Your task to perform on an android device: Clear the cart on amazon. Search for asus zenbook on amazon, select the first entry, add it to the cart, then select checkout. Image 0: 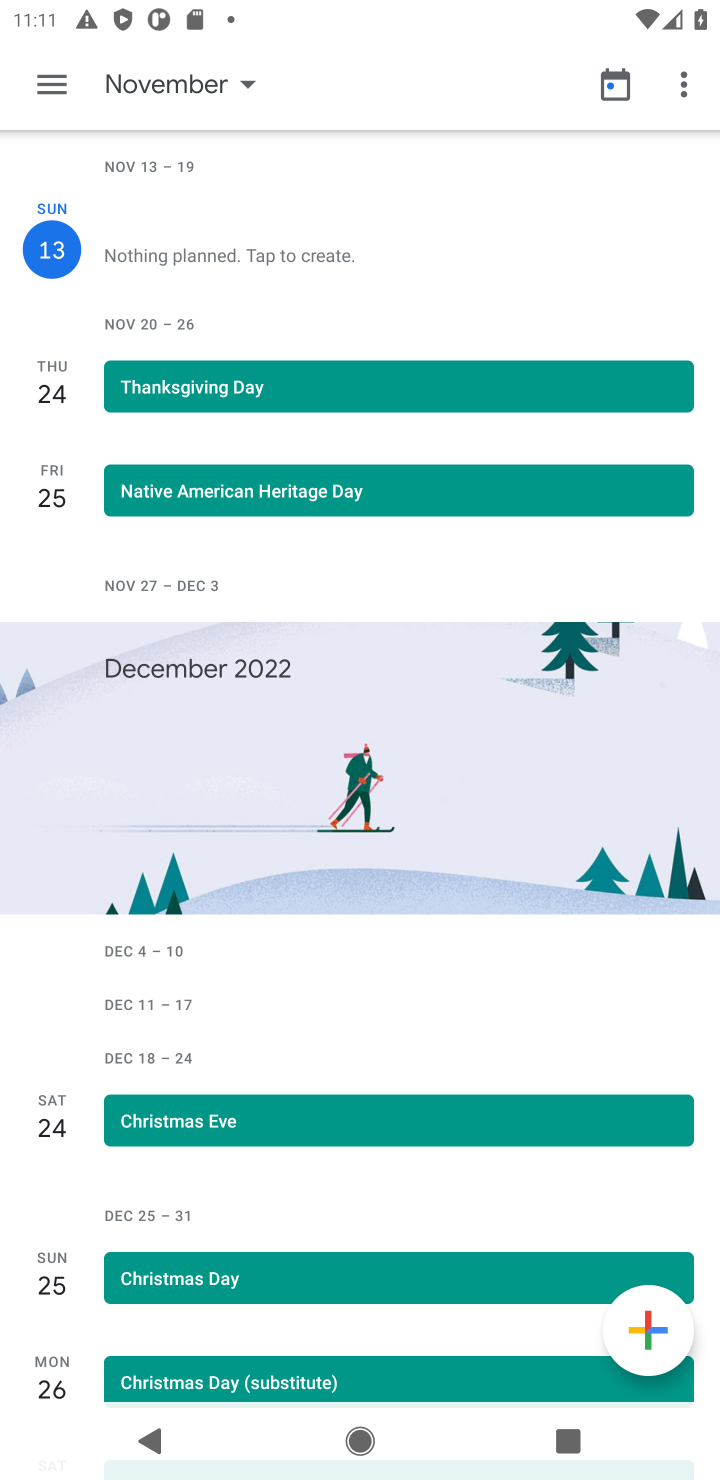
Step 0: press home button
Your task to perform on an android device: Clear the cart on amazon. Search for asus zenbook on amazon, select the first entry, add it to the cart, then select checkout. Image 1: 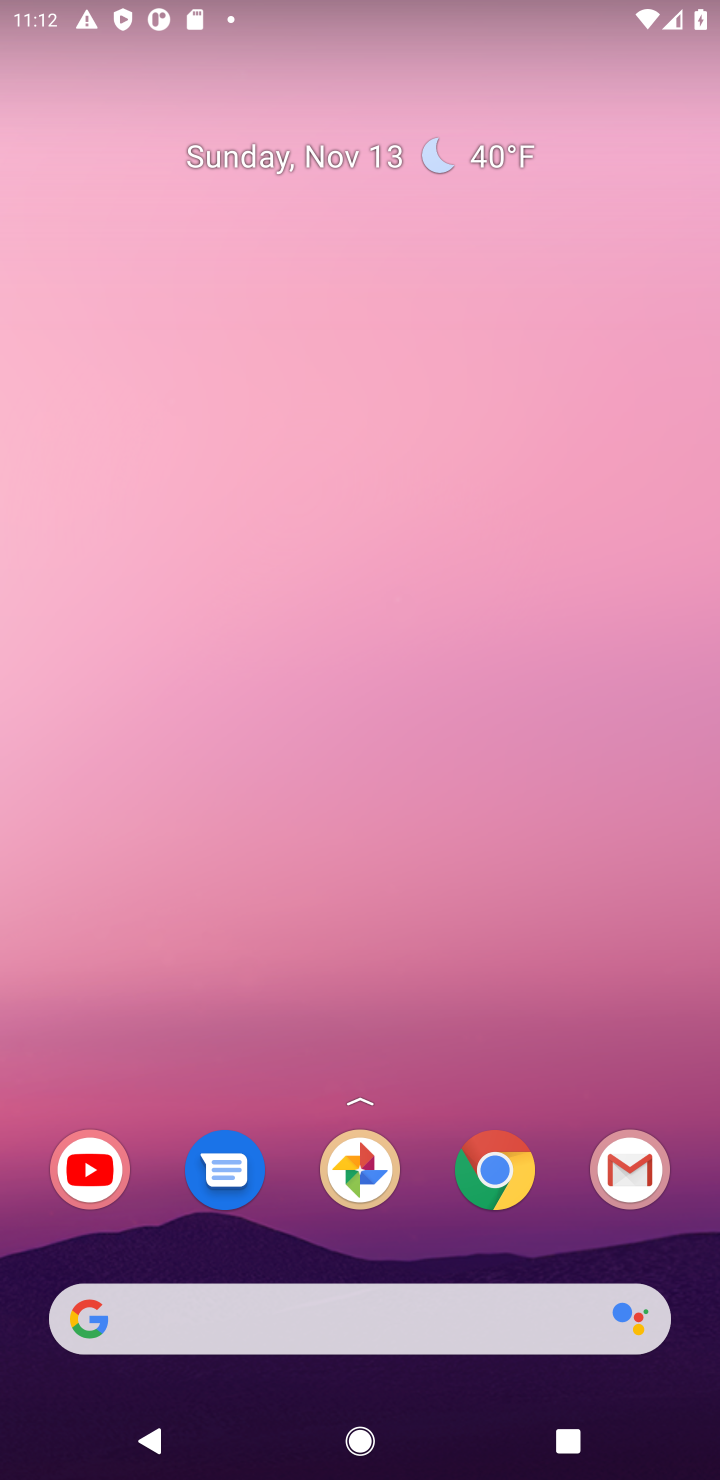
Step 1: drag from (452, 25) to (124, 12)
Your task to perform on an android device: Clear the cart on amazon. Search for asus zenbook on amazon, select the first entry, add it to the cart, then select checkout. Image 2: 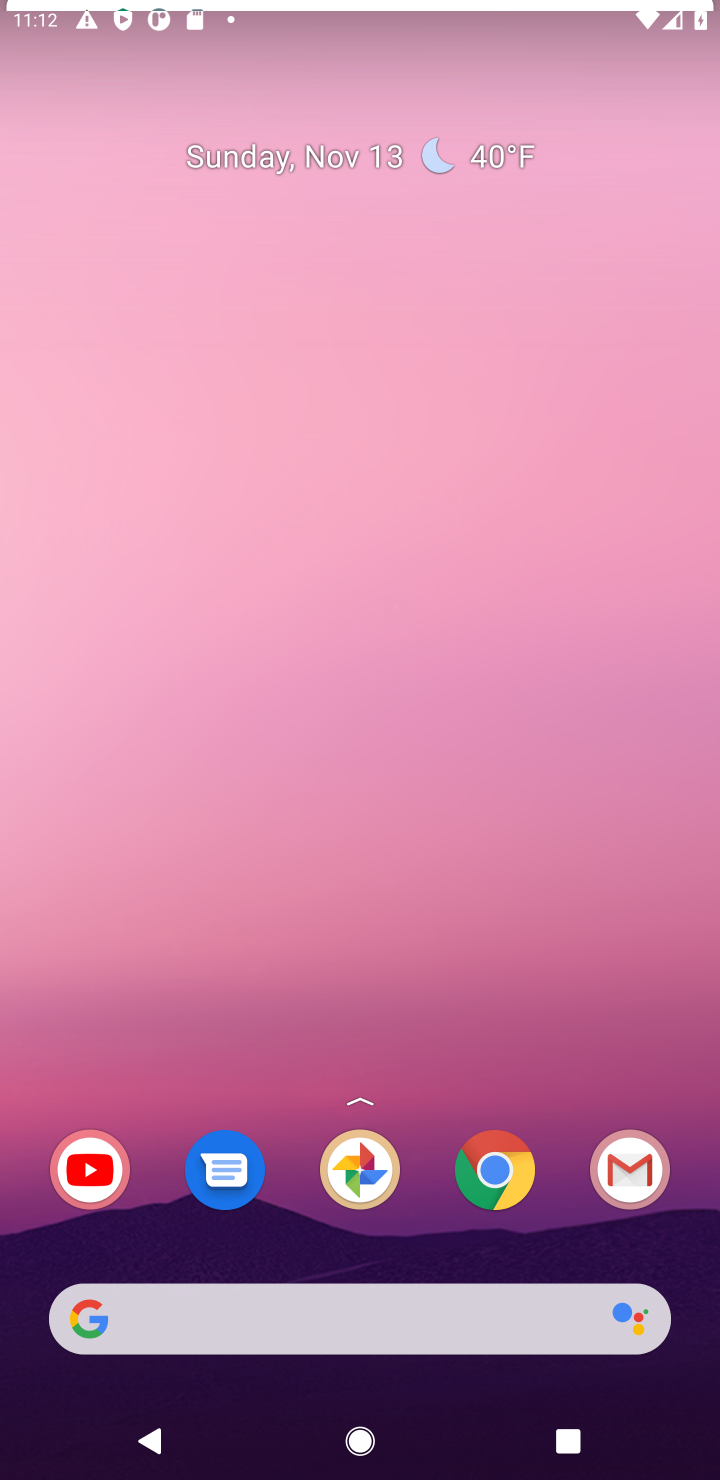
Step 2: drag from (487, 528) to (372, 39)
Your task to perform on an android device: Clear the cart on amazon. Search for asus zenbook on amazon, select the first entry, add it to the cart, then select checkout. Image 3: 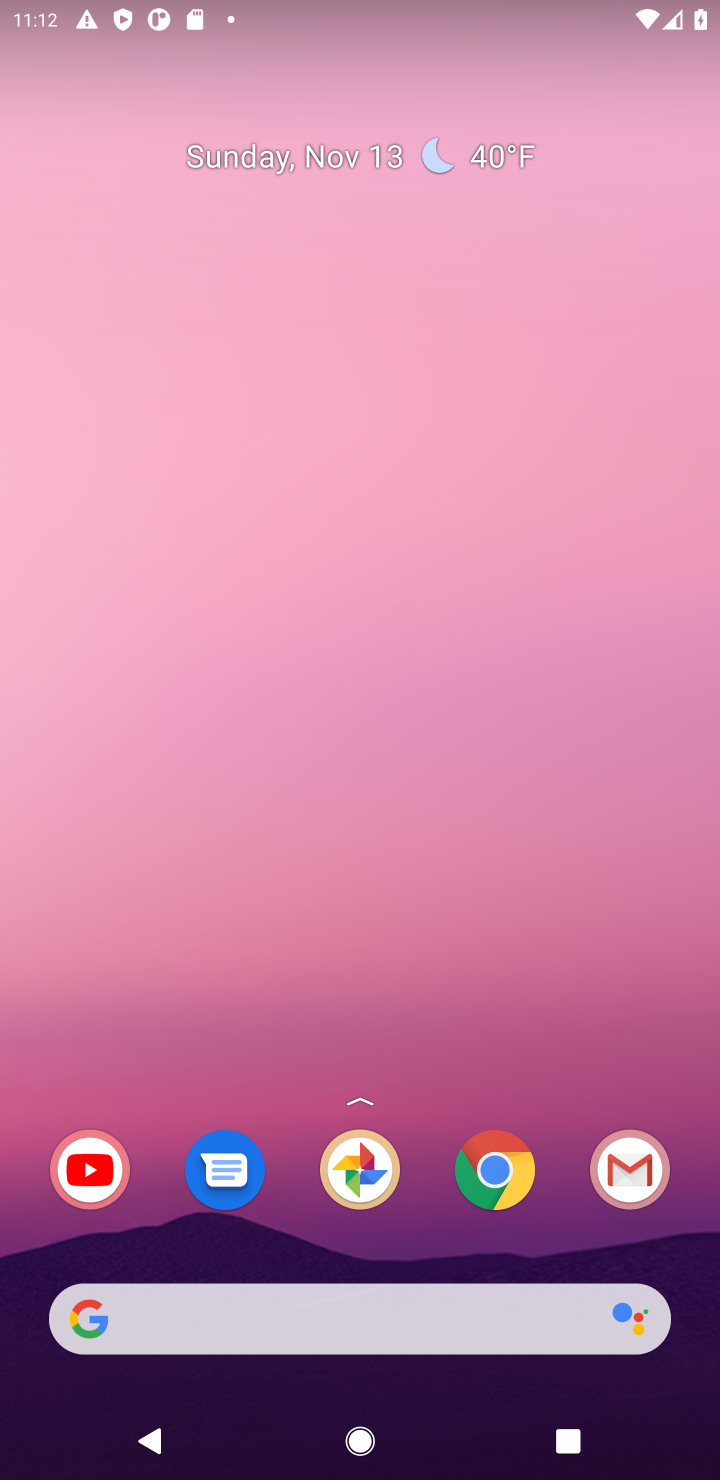
Step 3: drag from (538, 1040) to (469, 111)
Your task to perform on an android device: Clear the cart on amazon. Search for asus zenbook on amazon, select the first entry, add it to the cart, then select checkout. Image 4: 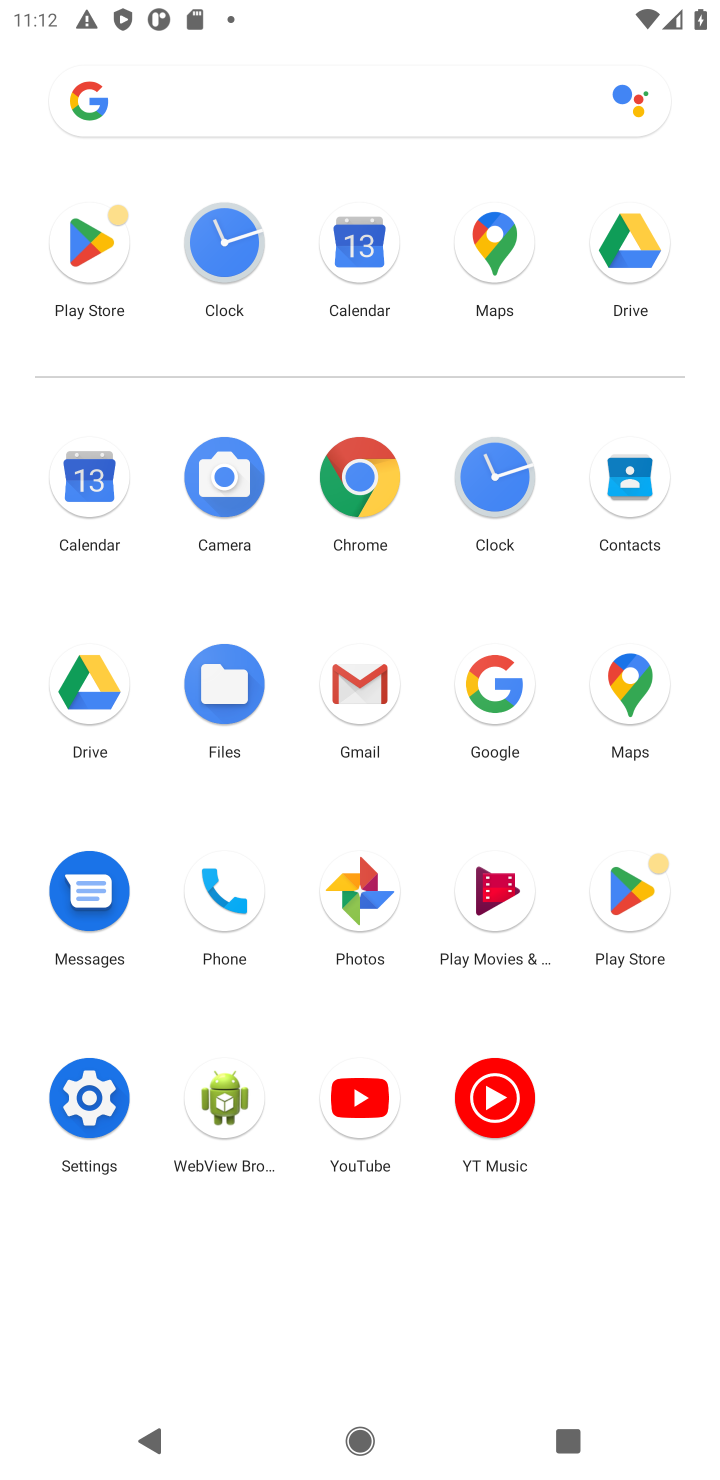
Step 4: click (354, 517)
Your task to perform on an android device: Clear the cart on amazon. Search for asus zenbook on amazon, select the first entry, add it to the cart, then select checkout. Image 5: 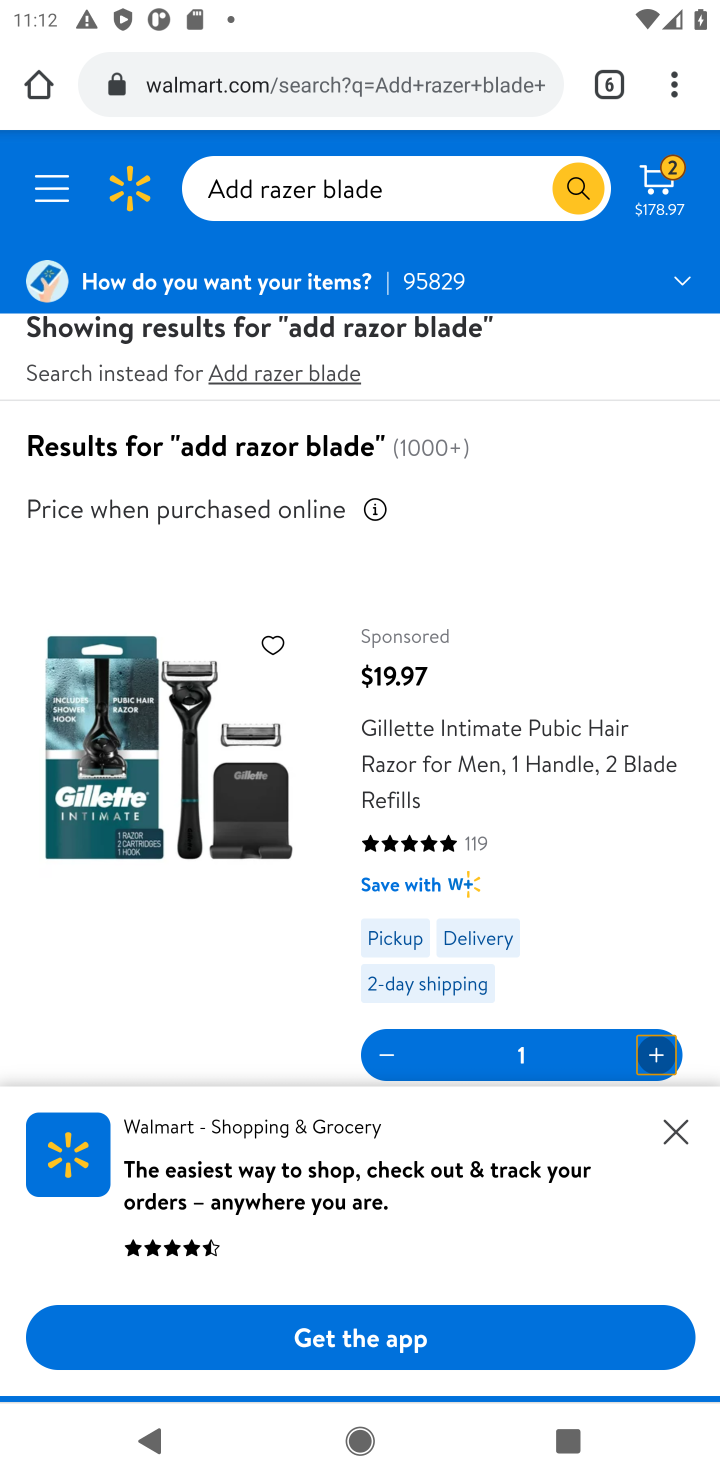
Step 5: click (290, 74)
Your task to perform on an android device: Clear the cart on amazon. Search for asus zenbook on amazon, select the first entry, add it to the cart, then select checkout. Image 6: 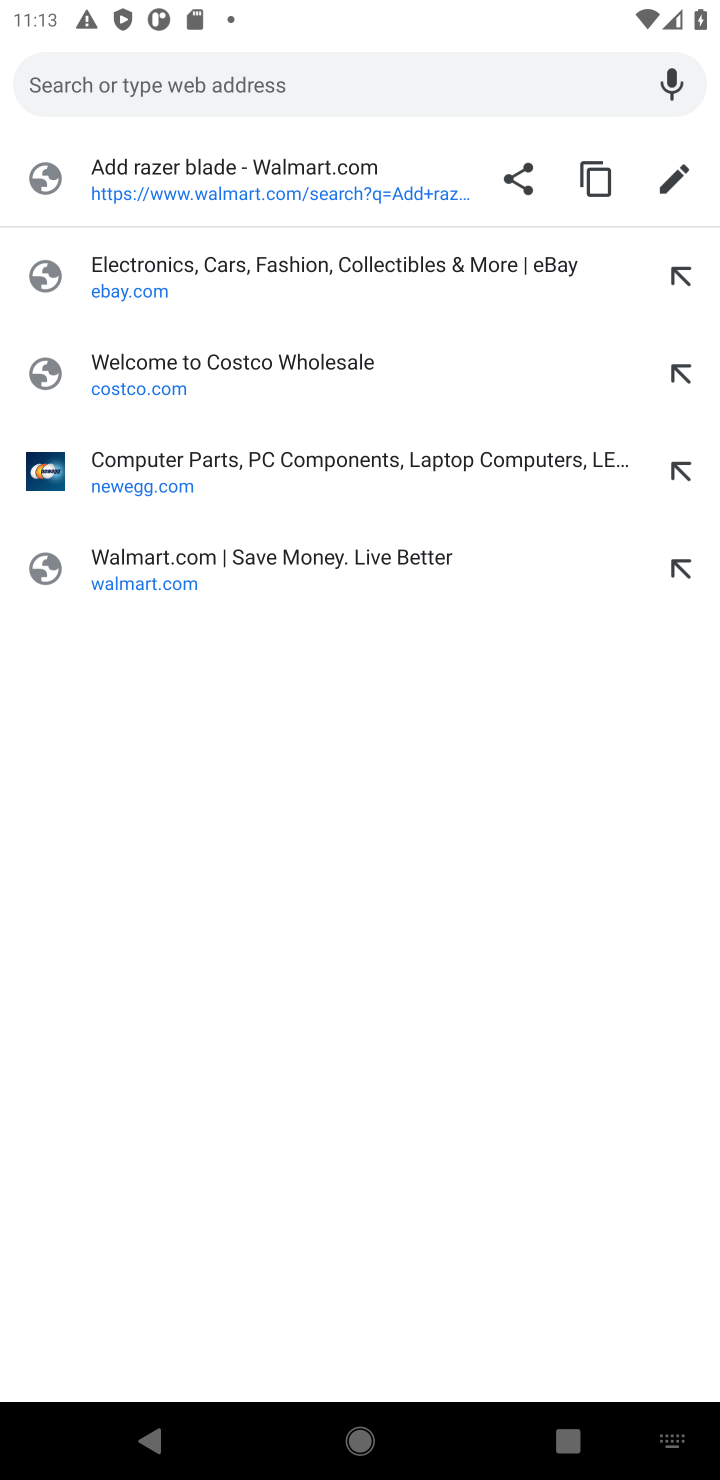
Step 6: type "amazon"
Your task to perform on an android device: Clear the cart on amazon. Search for asus zenbook on amazon, select the first entry, add it to the cart, then select checkout. Image 7: 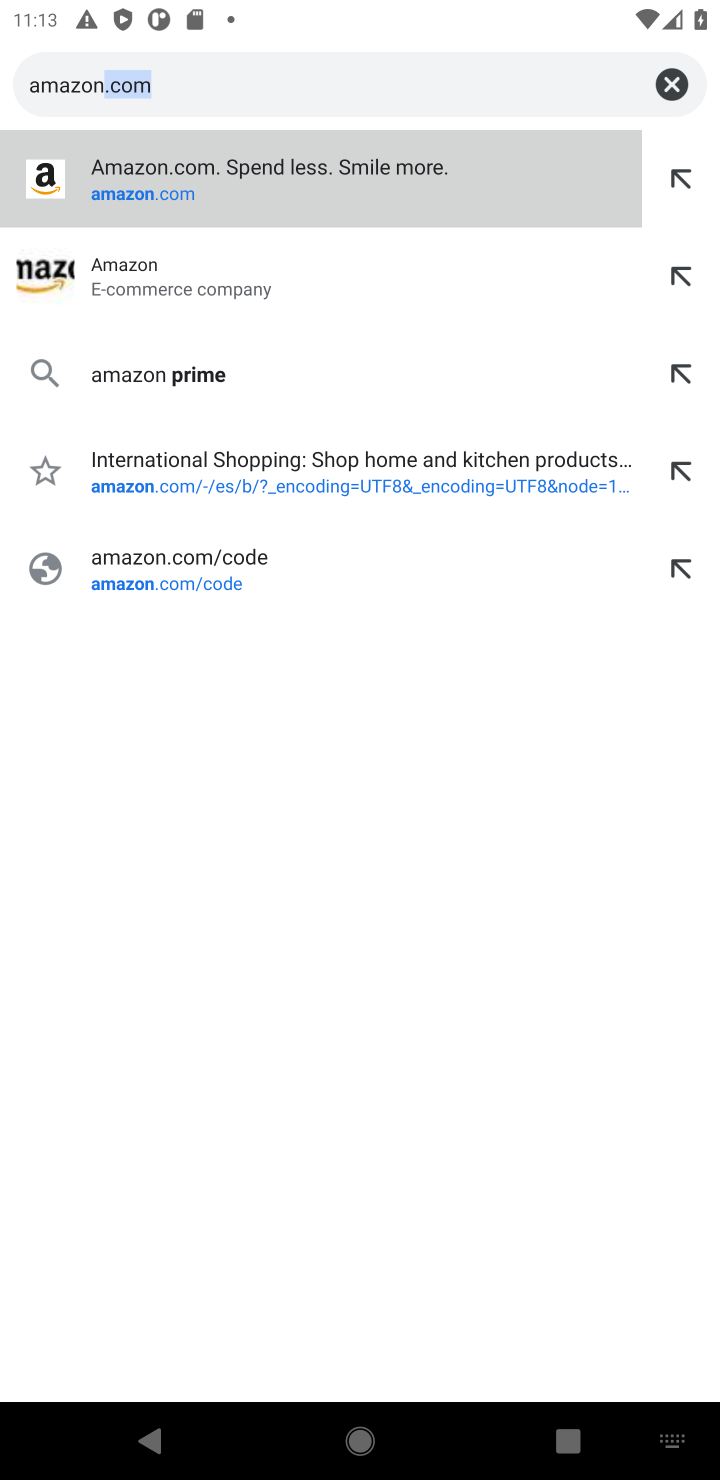
Step 7: press enter
Your task to perform on an android device: Clear the cart on amazon. Search for asus zenbook on amazon, select the first entry, add it to the cart, then select checkout. Image 8: 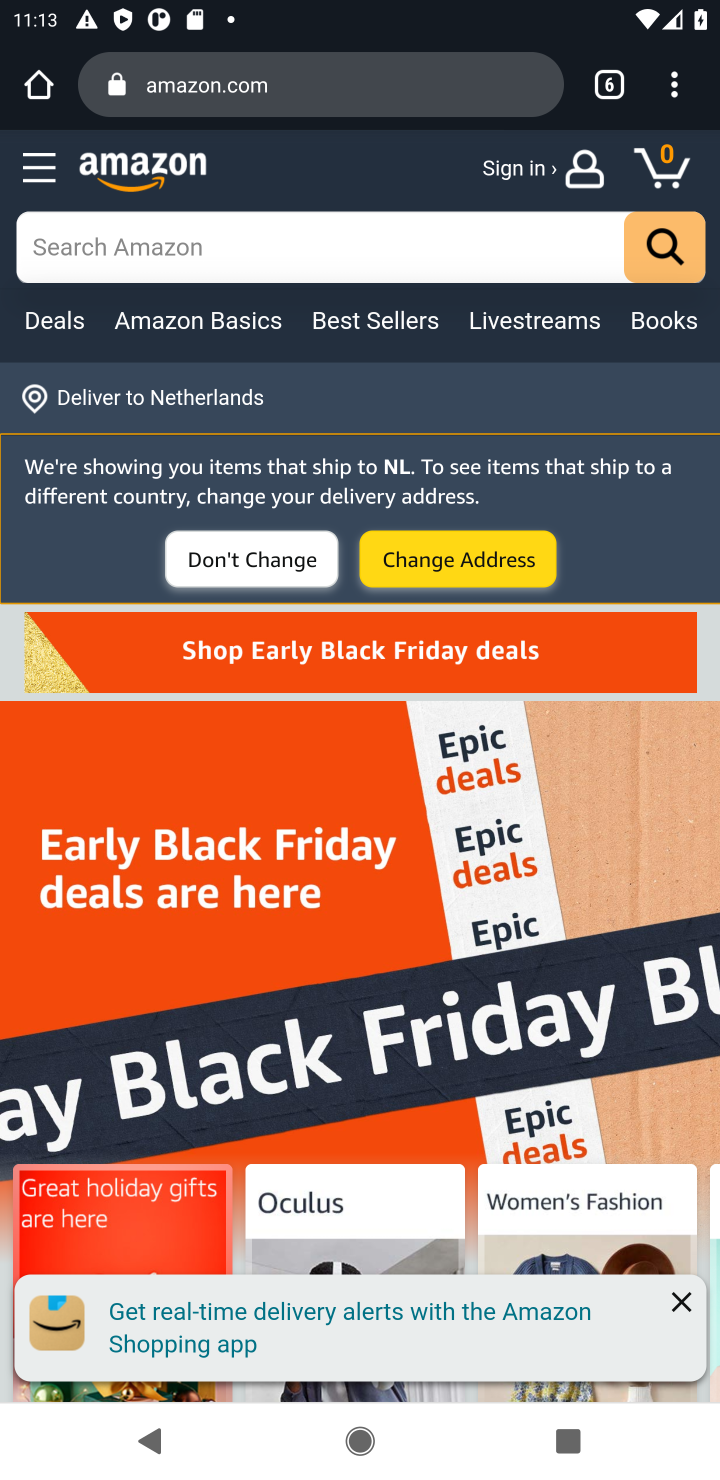
Step 8: click (236, 254)
Your task to perform on an android device: Clear the cart on amazon. Search for asus zenbook on amazon, select the first entry, add it to the cart, then select checkout. Image 9: 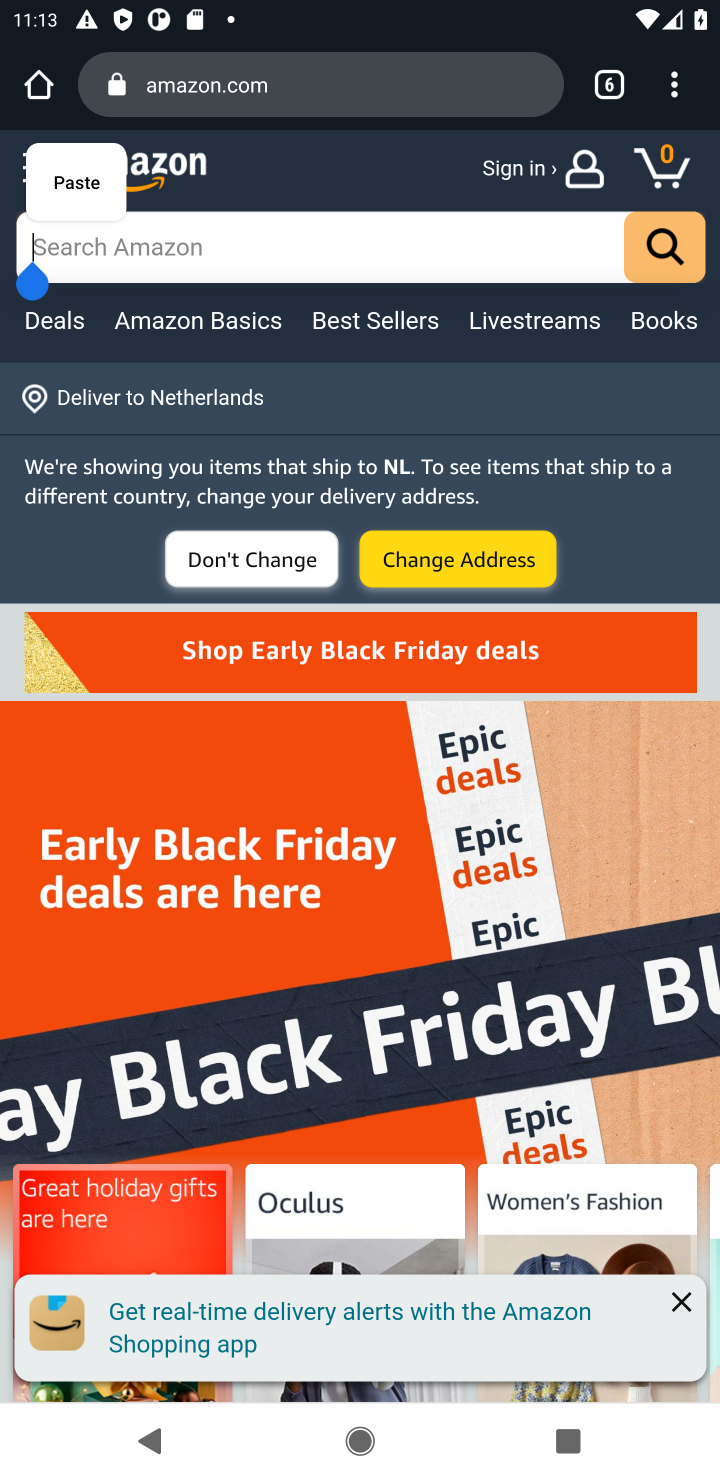
Step 9: click (65, 196)
Your task to perform on an android device: Clear the cart on amazon. Search for asus zenbook on amazon, select the first entry, add it to the cart, then select checkout. Image 10: 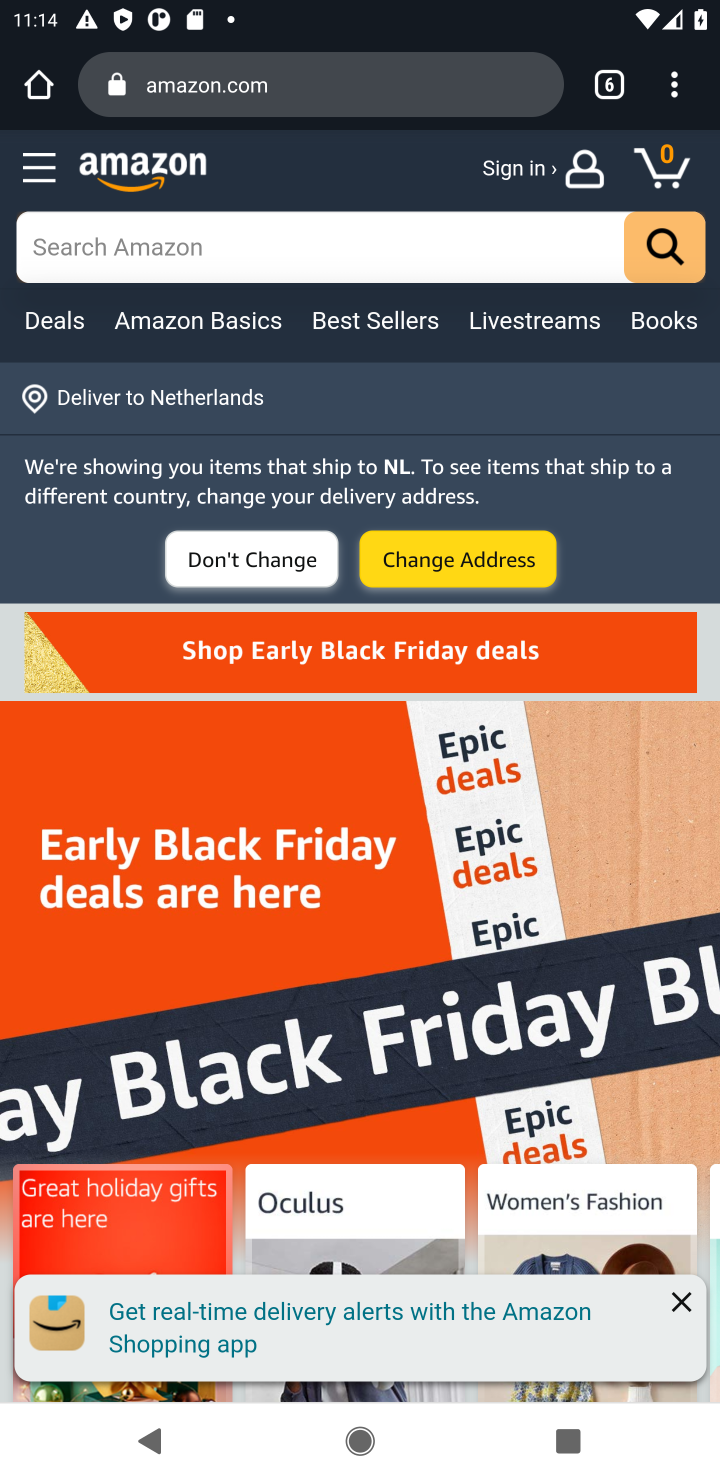
Step 10: type "asus zenbook"
Your task to perform on an android device: Clear the cart on amazon. Search for asus zenbook on amazon, select the first entry, add it to the cart, then select checkout. Image 11: 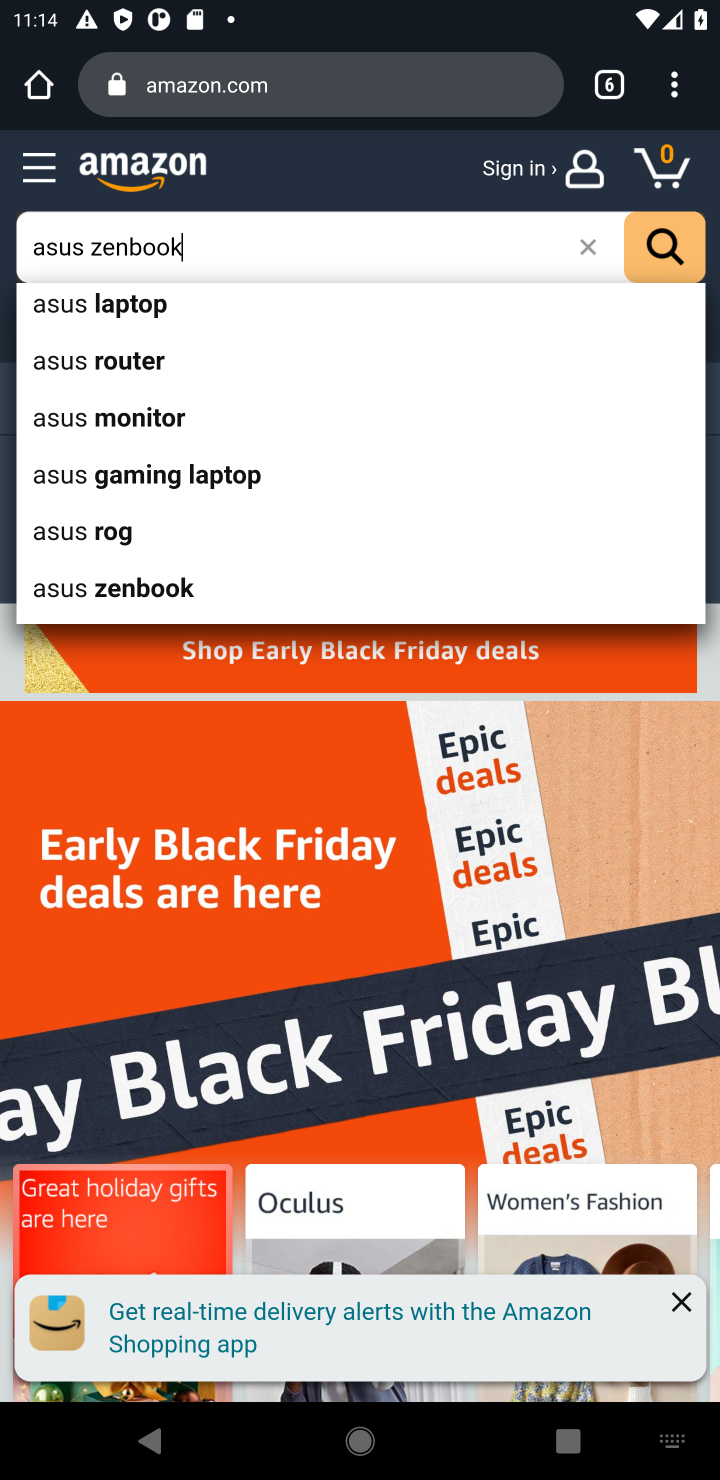
Step 11: press enter
Your task to perform on an android device: Clear the cart on amazon. Search for asus zenbook on amazon, select the first entry, add it to the cart, then select checkout. Image 12: 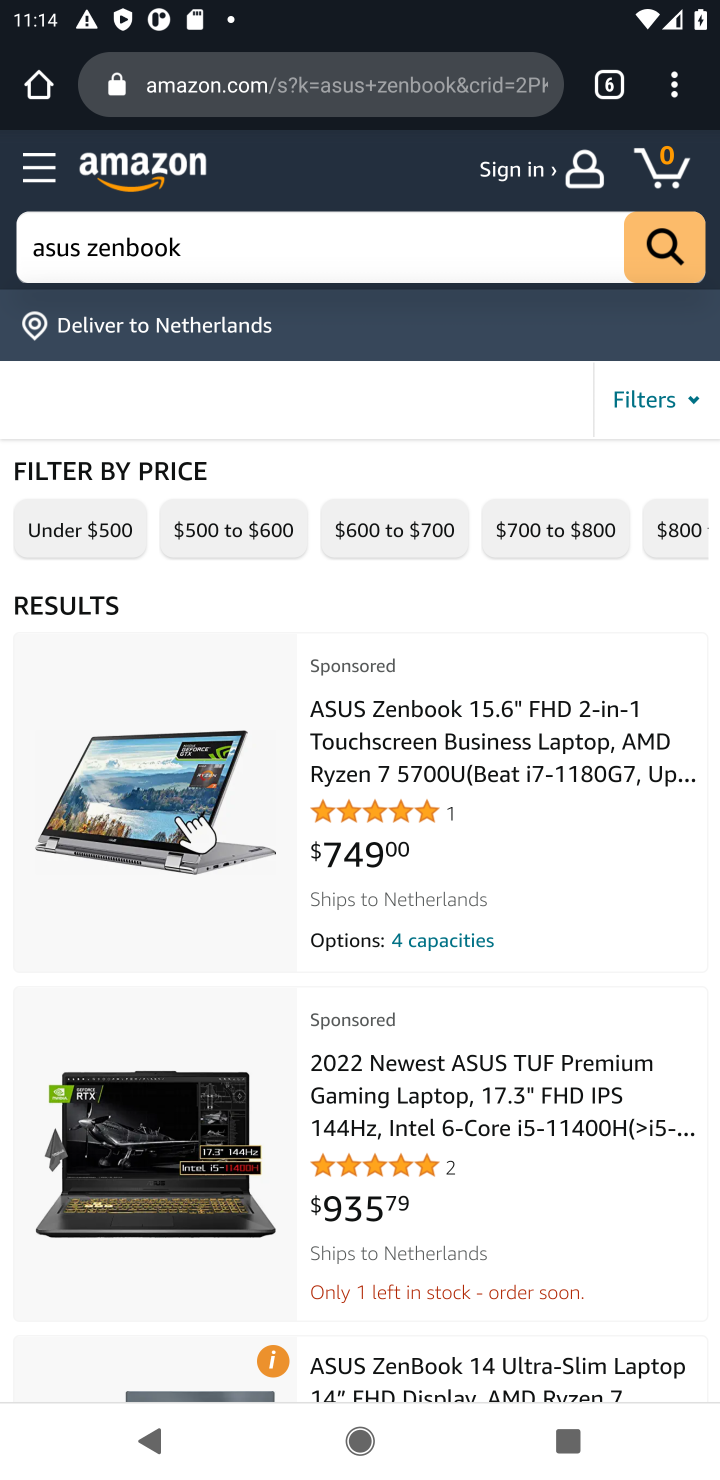
Step 12: click (519, 727)
Your task to perform on an android device: Clear the cart on amazon. Search for asus zenbook on amazon, select the first entry, add it to the cart, then select checkout. Image 13: 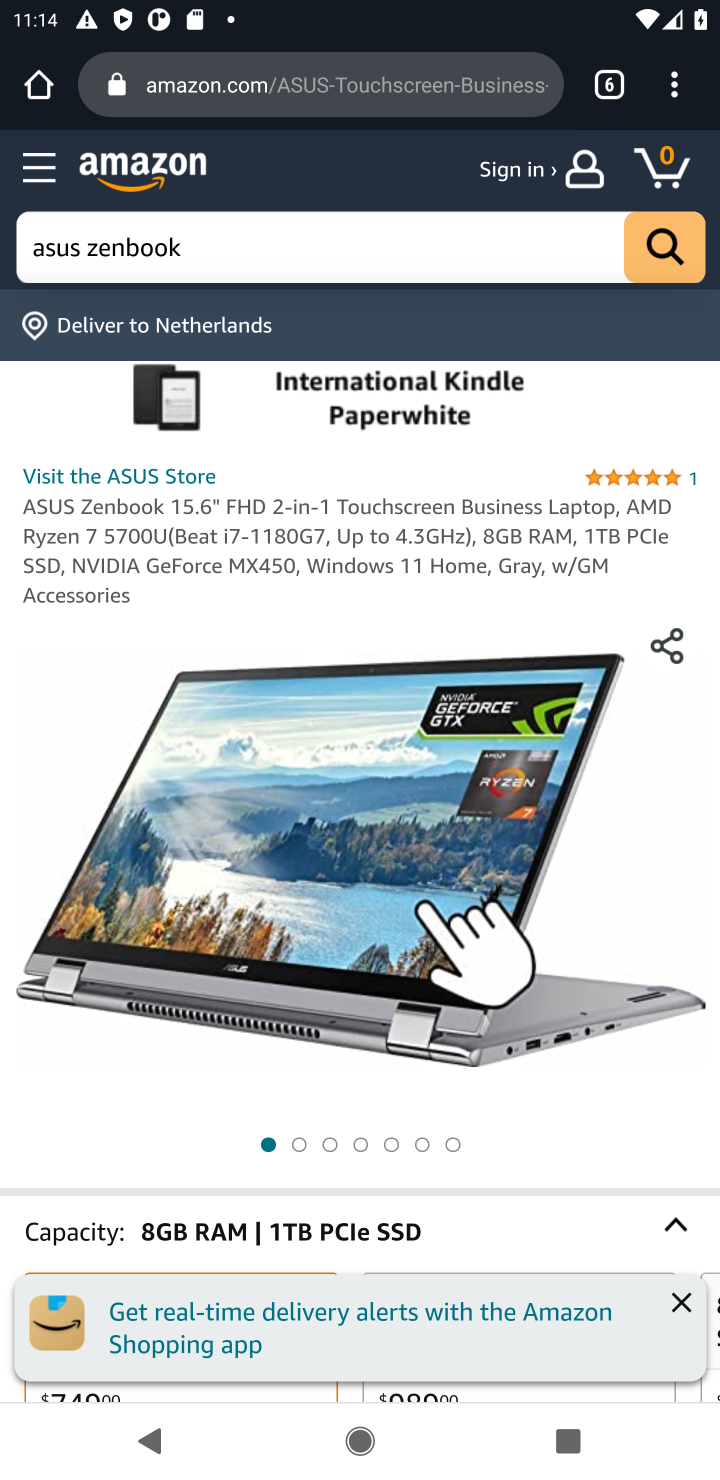
Step 13: drag from (460, 786) to (337, 263)
Your task to perform on an android device: Clear the cart on amazon. Search for asus zenbook on amazon, select the first entry, add it to the cart, then select checkout. Image 14: 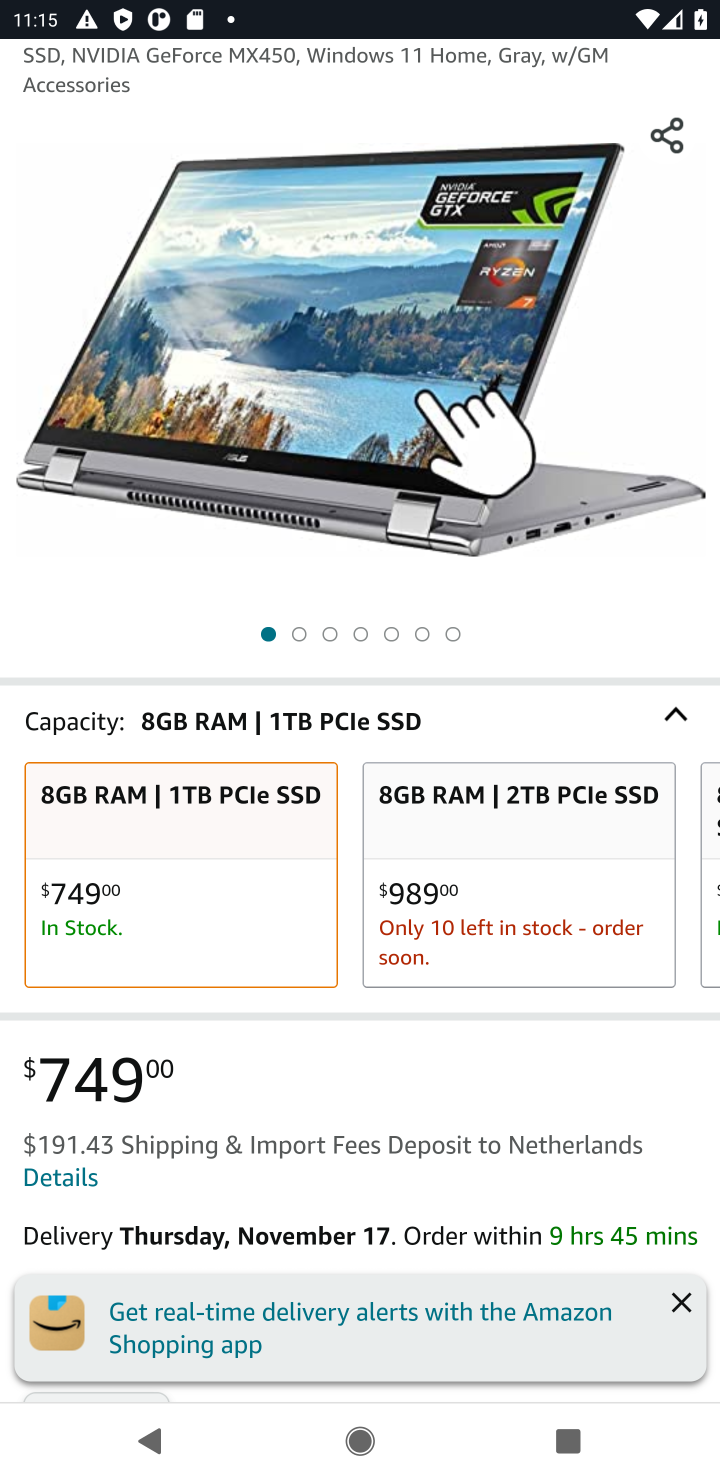
Step 14: drag from (422, 989) to (335, 345)
Your task to perform on an android device: Clear the cart on amazon. Search for asus zenbook on amazon, select the first entry, add it to the cart, then select checkout. Image 15: 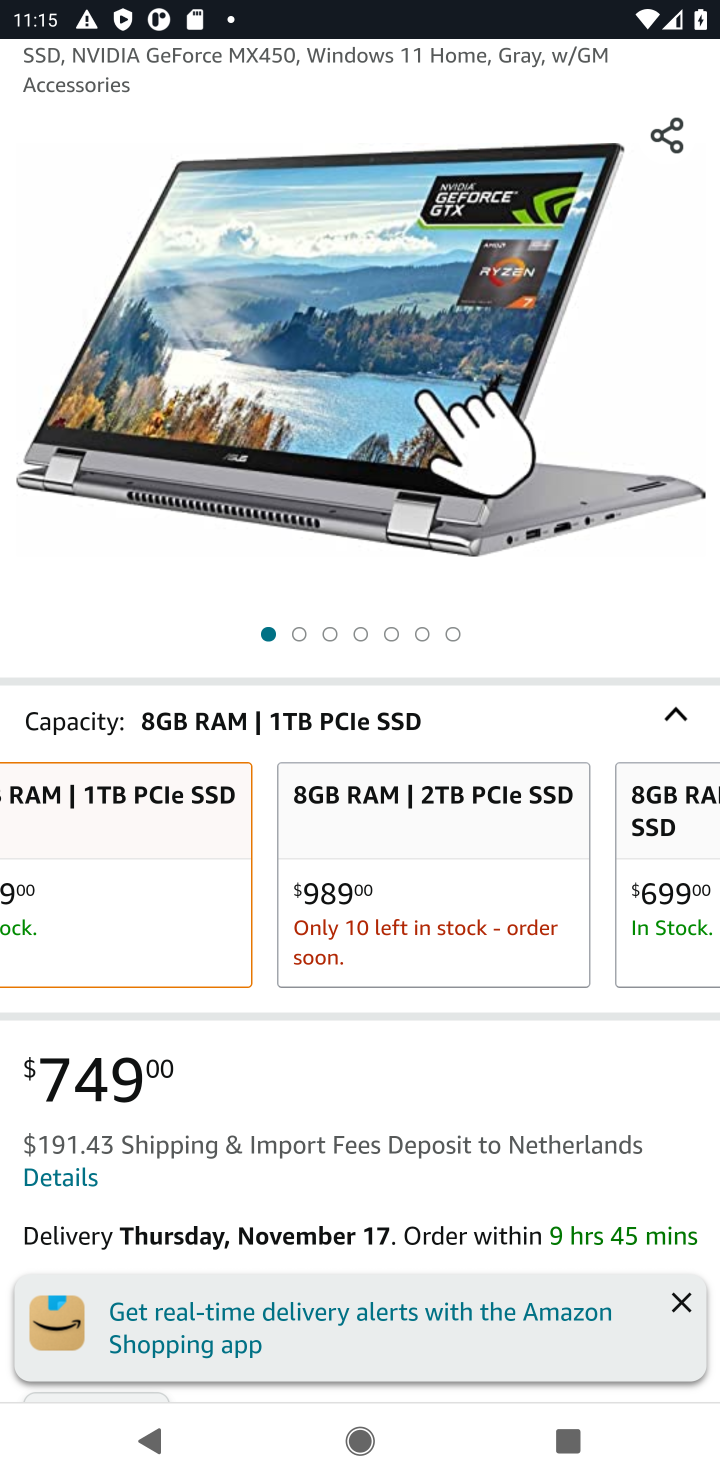
Step 15: drag from (416, 1092) to (278, 252)
Your task to perform on an android device: Clear the cart on amazon. Search for asus zenbook on amazon, select the first entry, add it to the cart, then select checkout. Image 16: 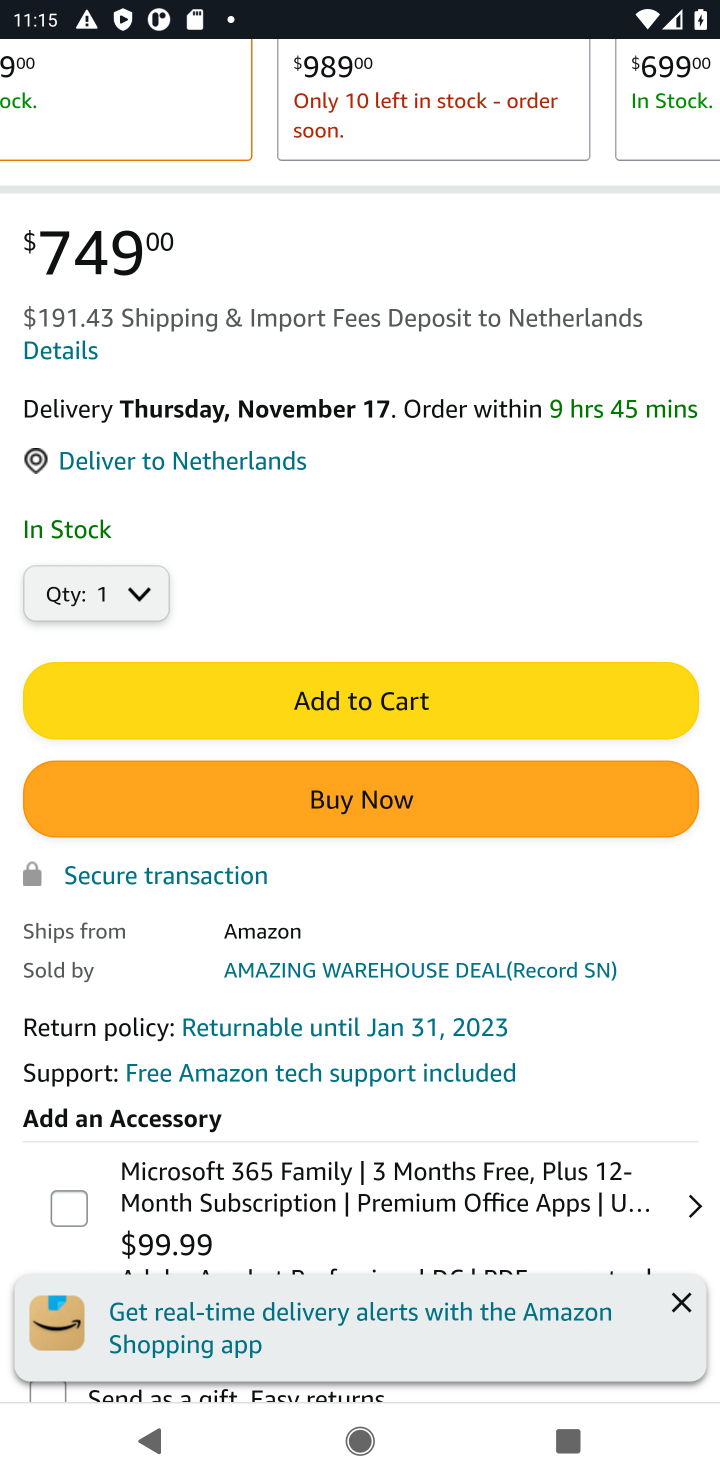
Step 16: click (337, 683)
Your task to perform on an android device: Clear the cart on amazon. Search for asus zenbook on amazon, select the first entry, add it to the cart, then select checkout. Image 17: 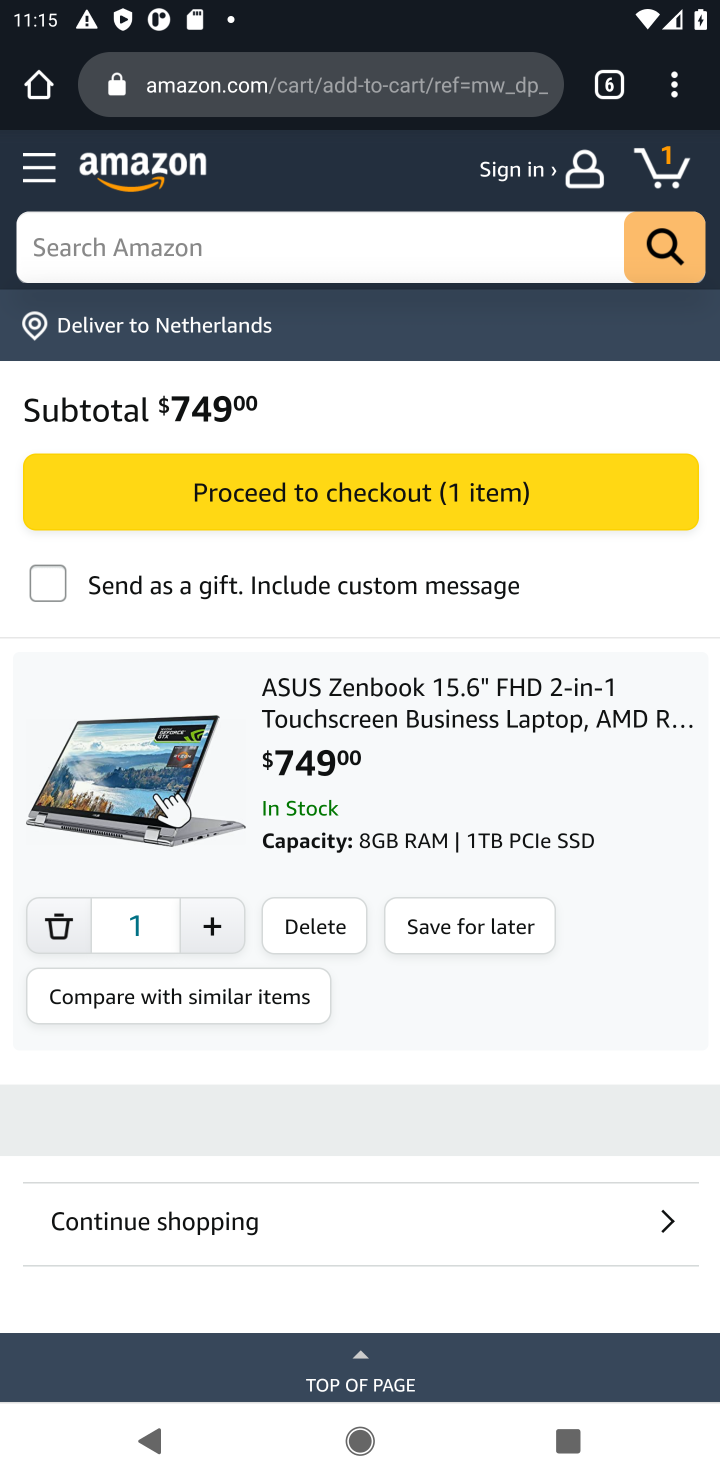
Step 17: click (339, 512)
Your task to perform on an android device: Clear the cart on amazon. Search for asus zenbook on amazon, select the first entry, add it to the cart, then select checkout. Image 18: 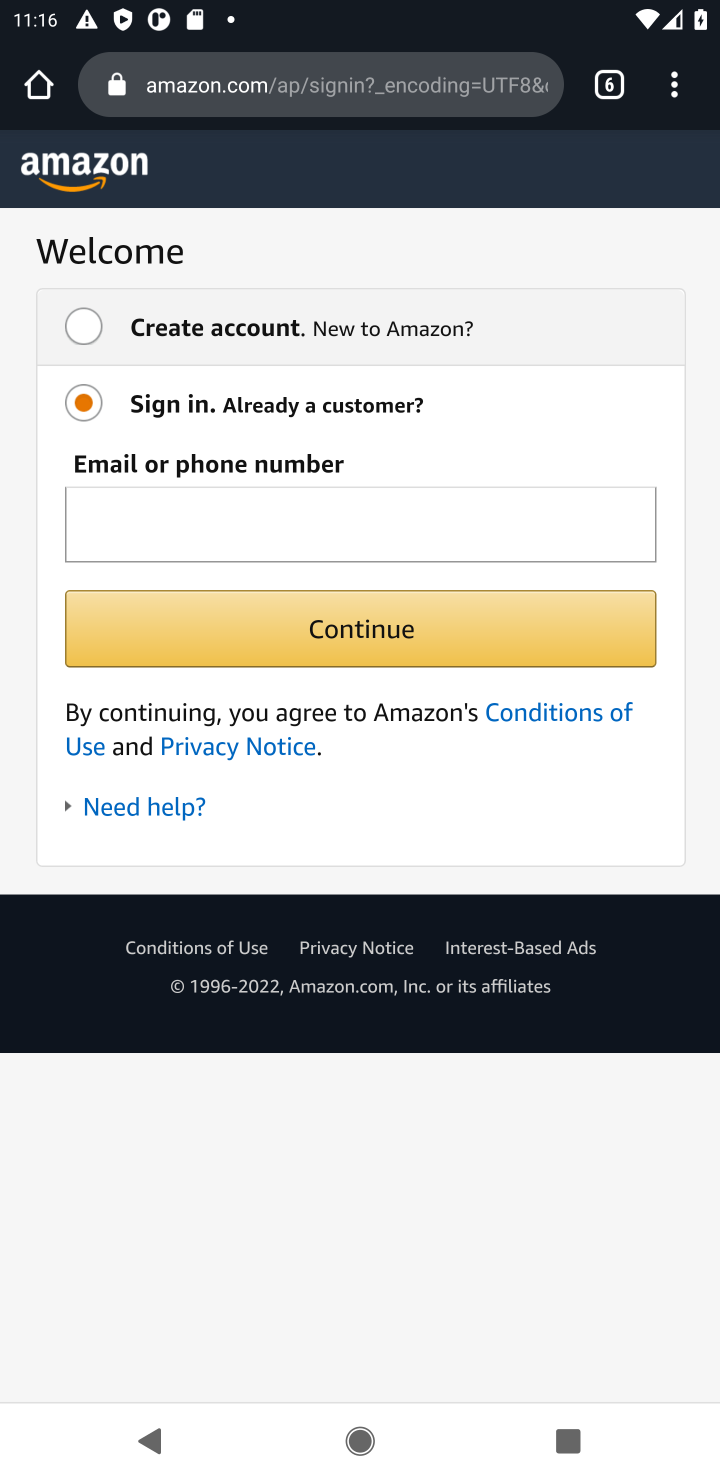
Step 18: task complete